Your task to perform on an android device: Open eBay Image 0: 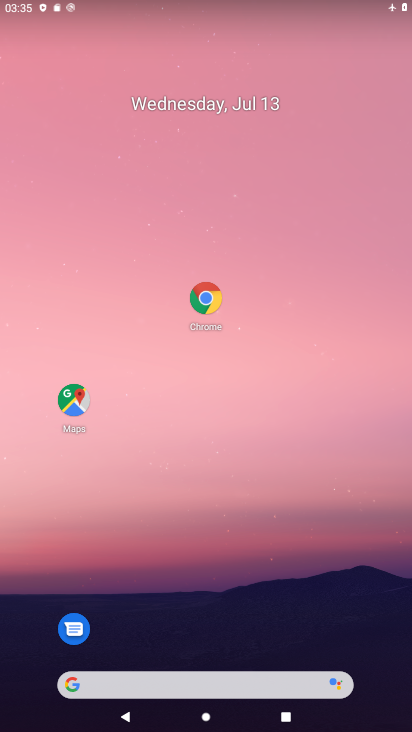
Step 0: drag from (217, 457) to (217, 259)
Your task to perform on an android device: Open eBay Image 1: 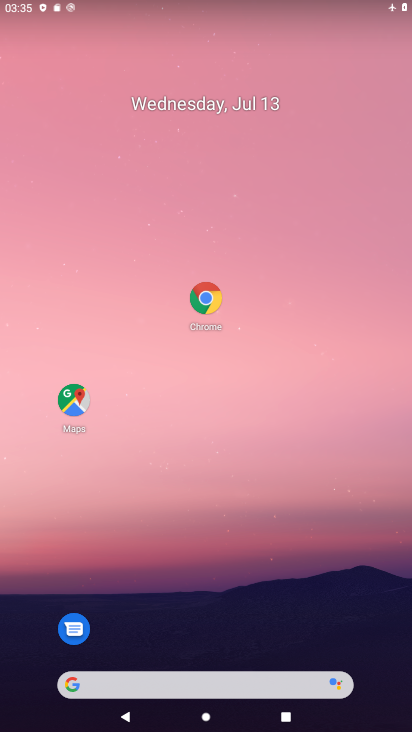
Step 1: drag from (241, 646) to (284, 165)
Your task to perform on an android device: Open eBay Image 2: 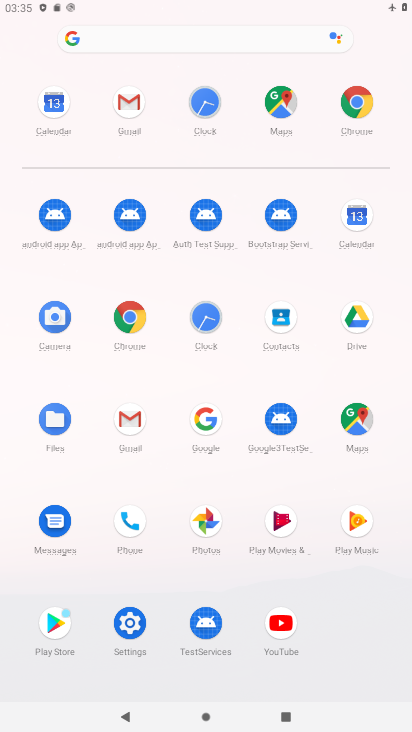
Step 2: click (356, 91)
Your task to perform on an android device: Open eBay Image 3: 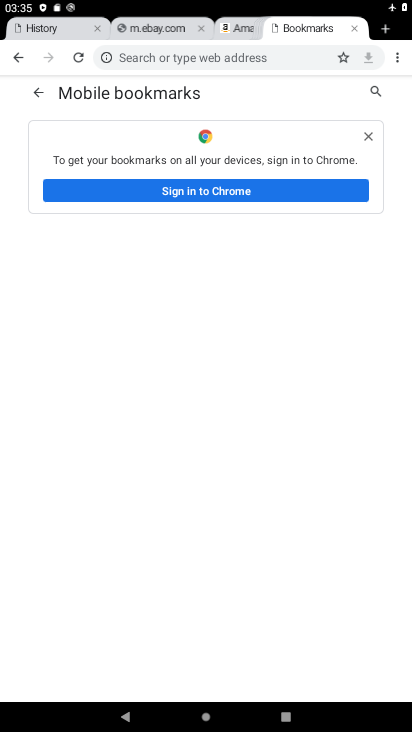
Step 3: click (381, 34)
Your task to perform on an android device: Open eBay Image 4: 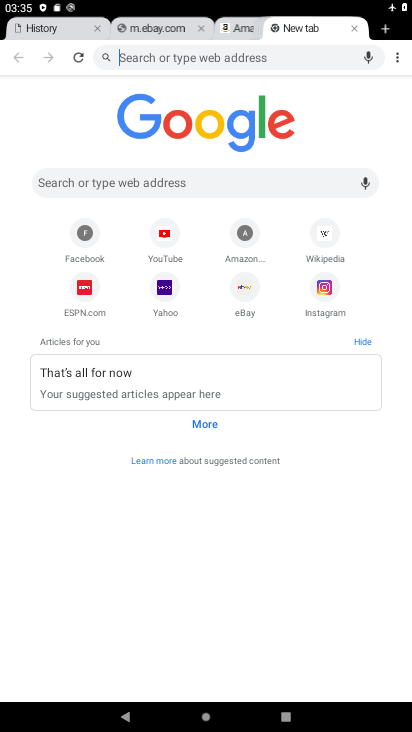
Step 4: click (237, 277)
Your task to perform on an android device: Open eBay Image 5: 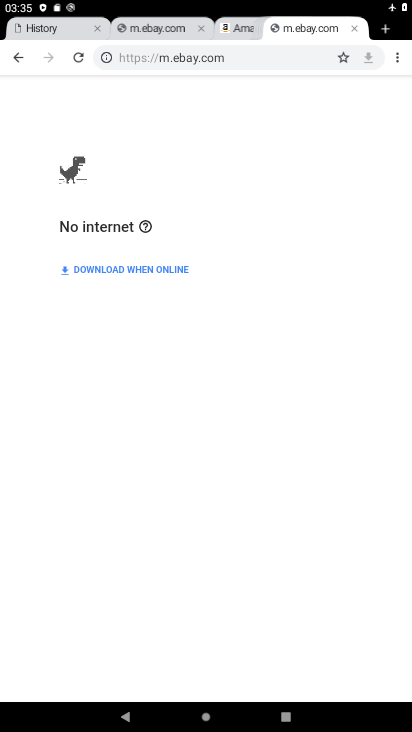
Step 5: task complete